Your task to perform on an android device: clear history in the chrome app Image 0: 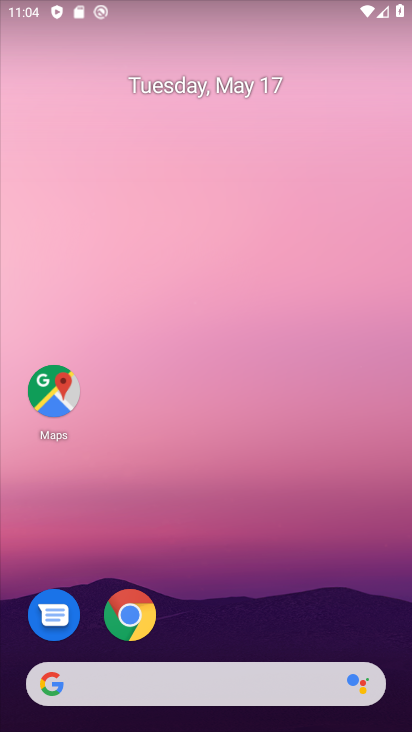
Step 0: drag from (368, 621) to (203, 11)
Your task to perform on an android device: clear history in the chrome app Image 1: 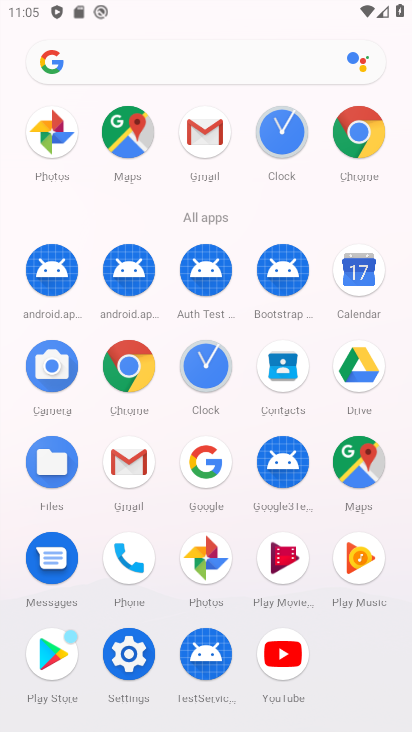
Step 1: click (127, 365)
Your task to perform on an android device: clear history in the chrome app Image 2: 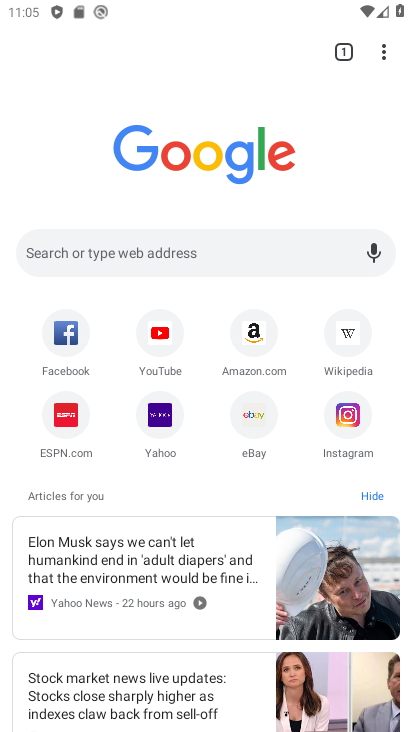
Step 2: click (376, 53)
Your task to perform on an android device: clear history in the chrome app Image 3: 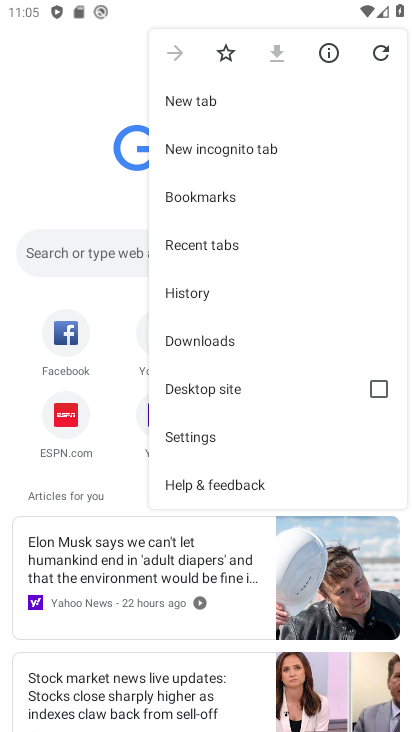
Step 3: click (215, 306)
Your task to perform on an android device: clear history in the chrome app Image 4: 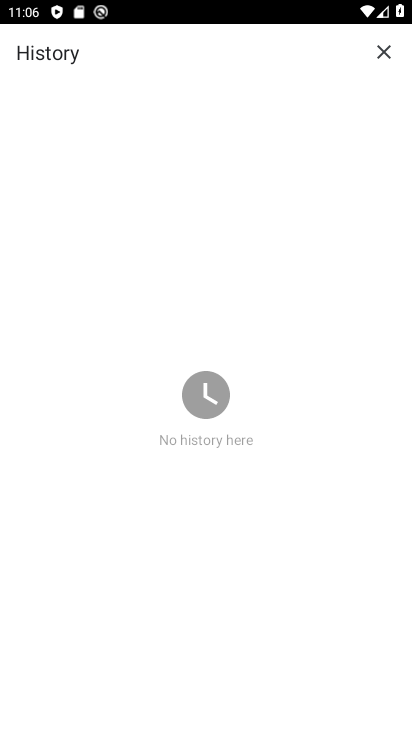
Step 4: task complete